Your task to perform on an android device: find which apps use the phone's location Image 0: 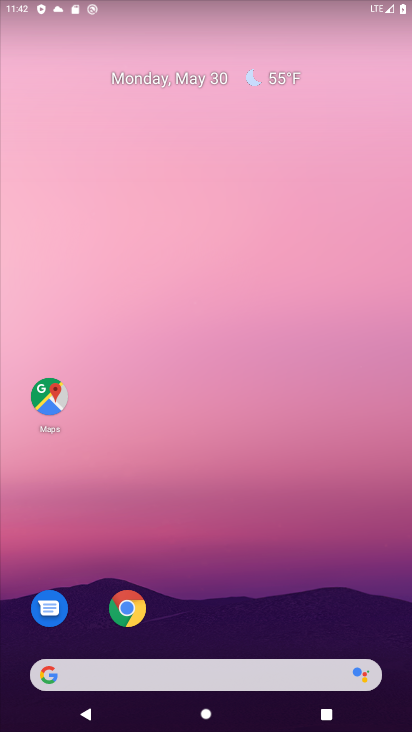
Step 0: drag from (237, 646) to (278, 1)
Your task to perform on an android device: find which apps use the phone's location Image 1: 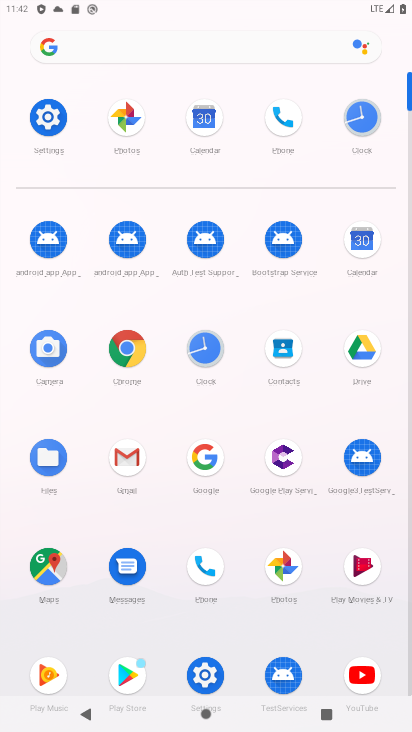
Step 1: click (44, 115)
Your task to perform on an android device: find which apps use the phone's location Image 2: 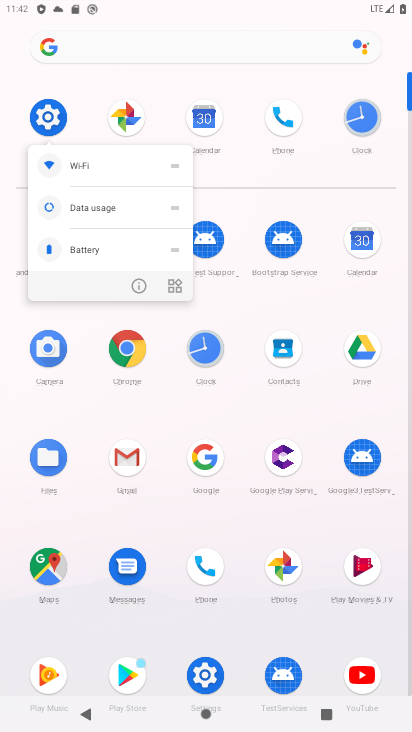
Step 2: click (44, 115)
Your task to perform on an android device: find which apps use the phone's location Image 3: 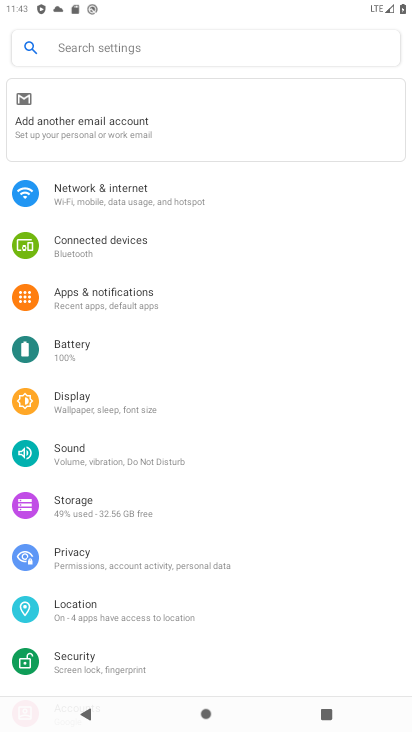
Step 3: click (75, 600)
Your task to perform on an android device: find which apps use the phone's location Image 4: 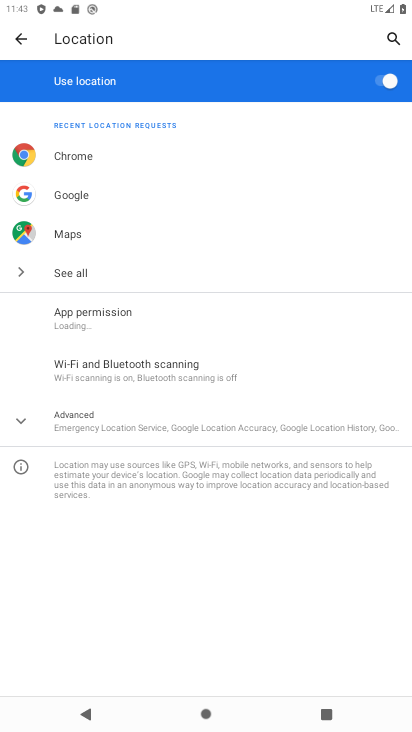
Step 4: click (70, 324)
Your task to perform on an android device: find which apps use the phone's location Image 5: 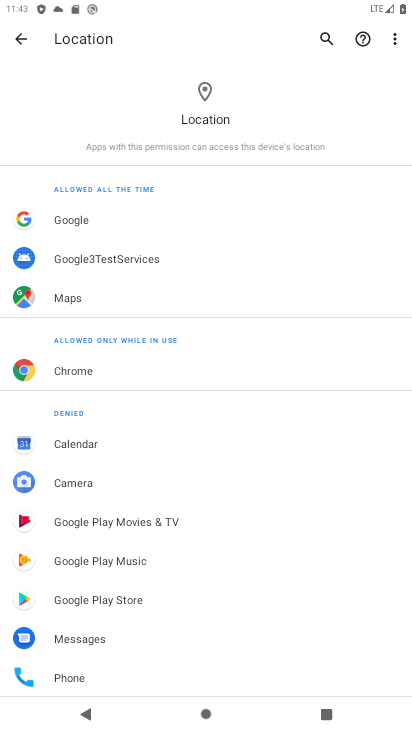
Step 5: task complete